Your task to perform on an android device: change notification settings in the gmail app Image 0: 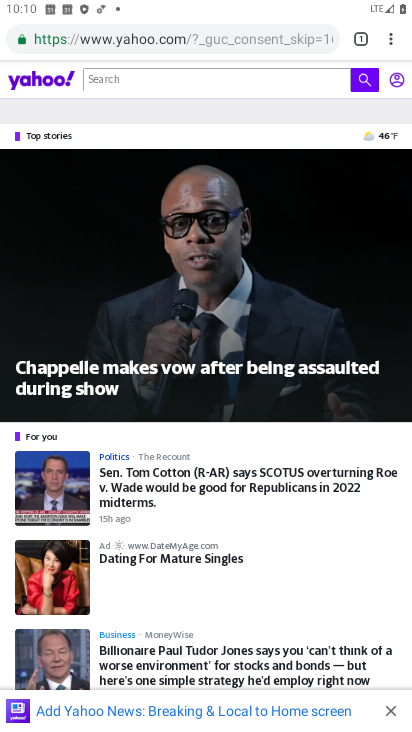
Step 0: drag from (168, 585) to (271, 143)
Your task to perform on an android device: change notification settings in the gmail app Image 1: 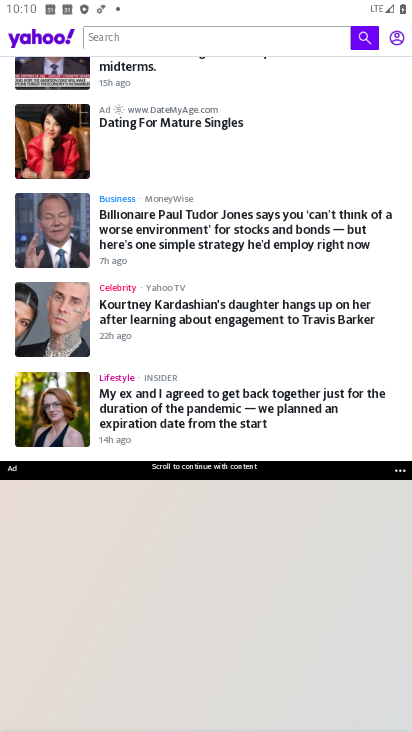
Step 1: drag from (223, 570) to (287, 340)
Your task to perform on an android device: change notification settings in the gmail app Image 2: 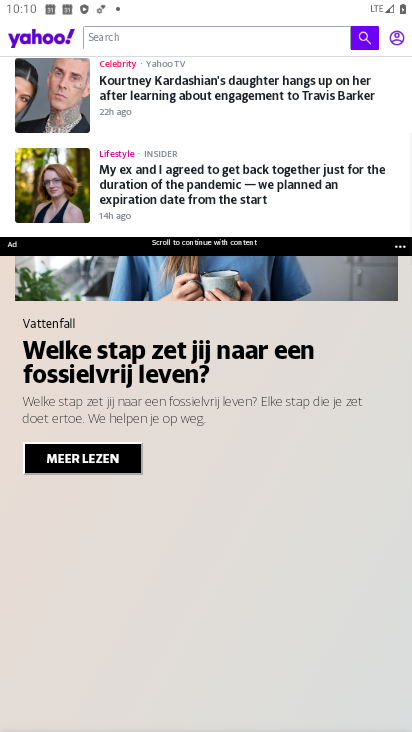
Step 2: drag from (229, 269) to (260, 730)
Your task to perform on an android device: change notification settings in the gmail app Image 3: 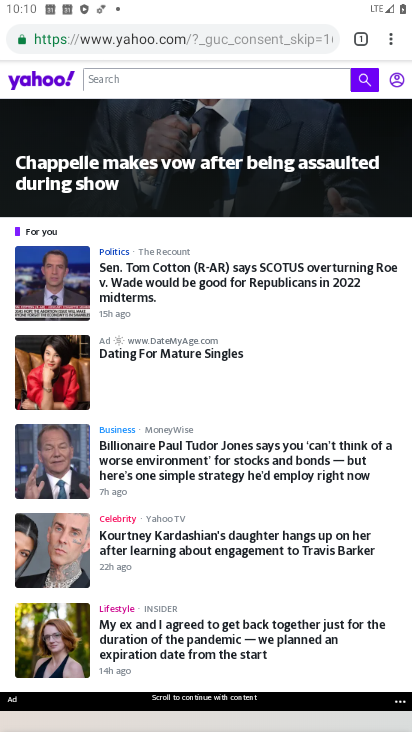
Step 3: drag from (220, 199) to (199, 563)
Your task to perform on an android device: change notification settings in the gmail app Image 4: 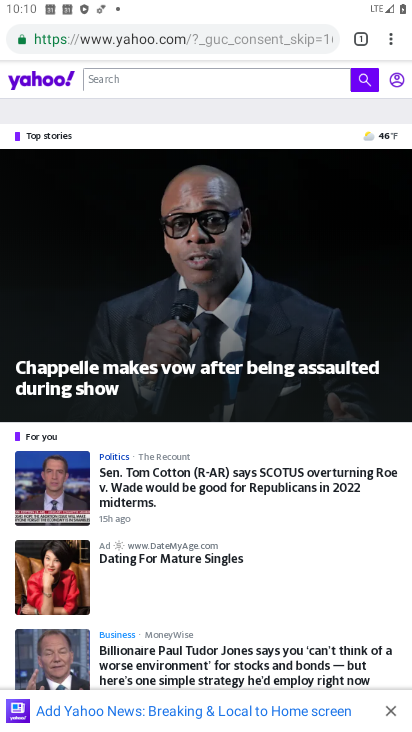
Step 4: drag from (222, 134) to (166, 550)
Your task to perform on an android device: change notification settings in the gmail app Image 5: 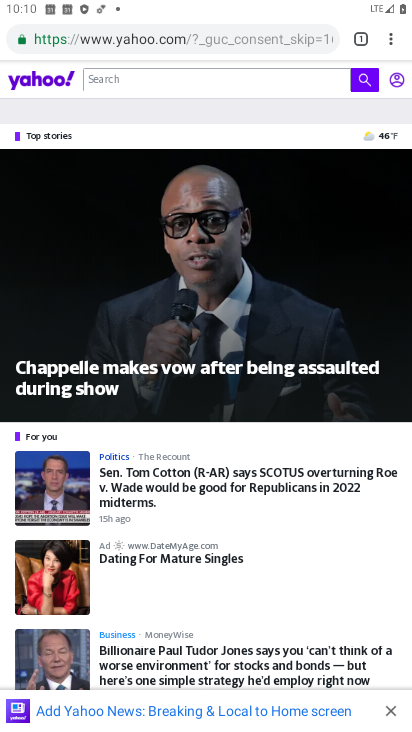
Step 5: drag from (197, 125) to (226, 258)
Your task to perform on an android device: change notification settings in the gmail app Image 6: 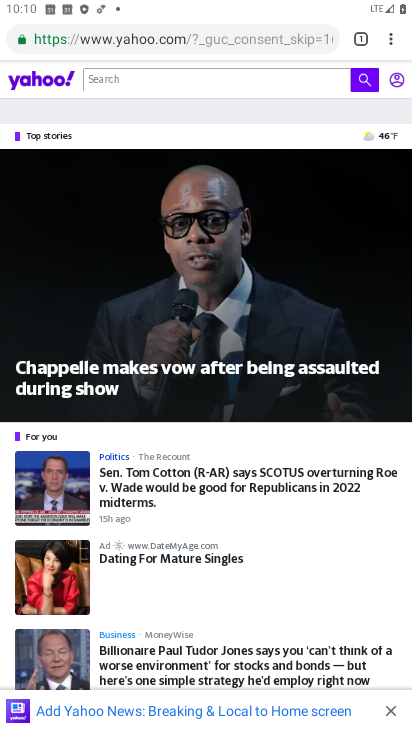
Step 6: click (390, 39)
Your task to perform on an android device: change notification settings in the gmail app Image 7: 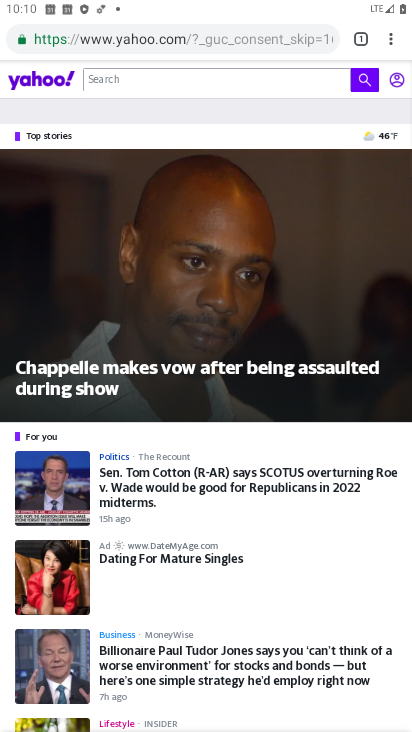
Step 7: press home button
Your task to perform on an android device: change notification settings in the gmail app Image 8: 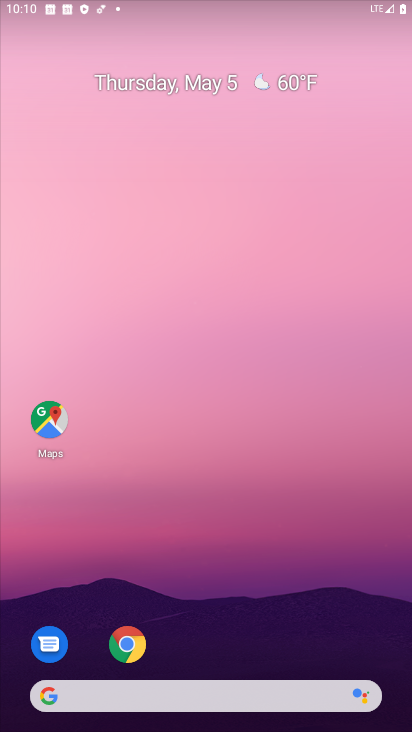
Step 8: drag from (214, 598) to (281, 191)
Your task to perform on an android device: change notification settings in the gmail app Image 9: 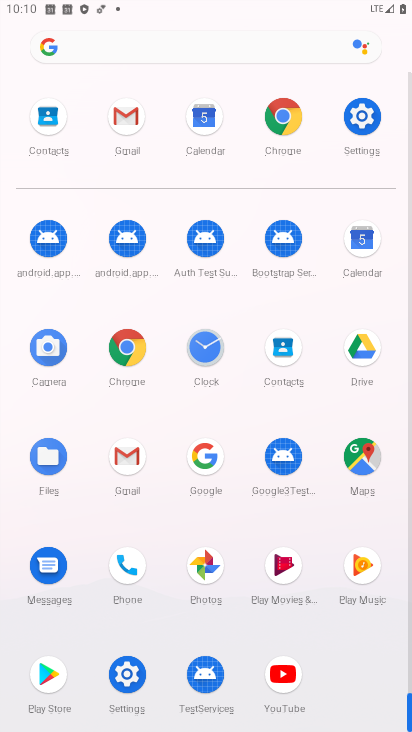
Step 9: click (112, 448)
Your task to perform on an android device: change notification settings in the gmail app Image 10: 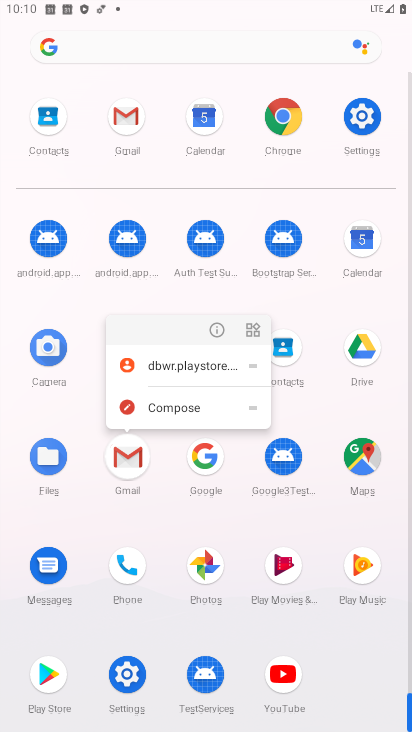
Step 10: click (116, 450)
Your task to perform on an android device: change notification settings in the gmail app Image 11: 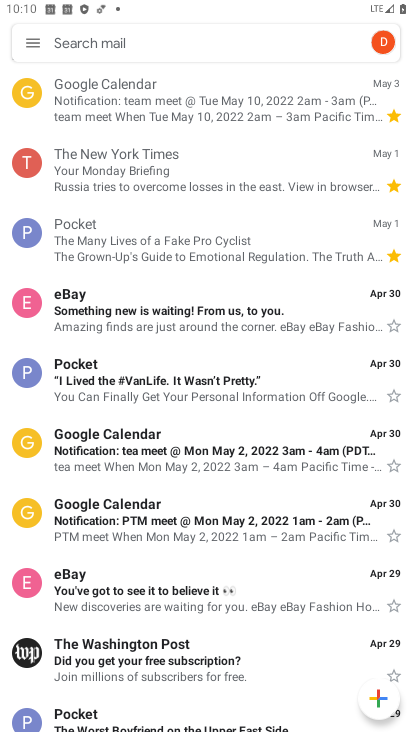
Step 11: drag from (189, 141) to (268, 597)
Your task to perform on an android device: change notification settings in the gmail app Image 12: 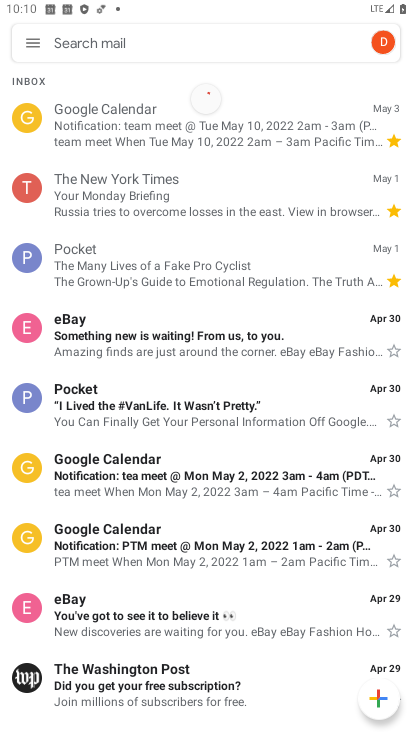
Step 12: click (19, 46)
Your task to perform on an android device: change notification settings in the gmail app Image 13: 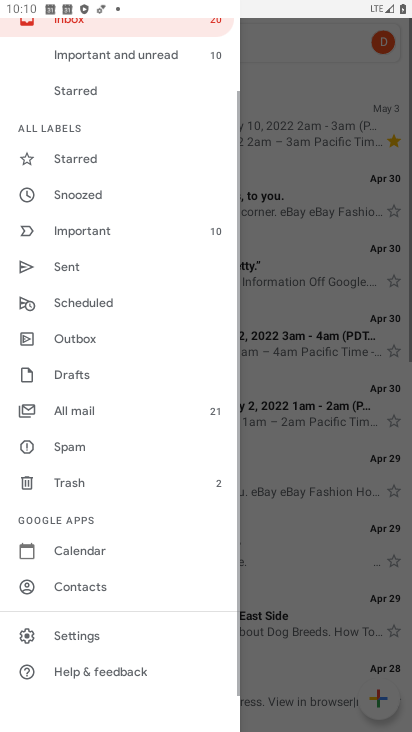
Step 13: drag from (149, 634) to (100, 60)
Your task to perform on an android device: change notification settings in the gmail app Image 14: 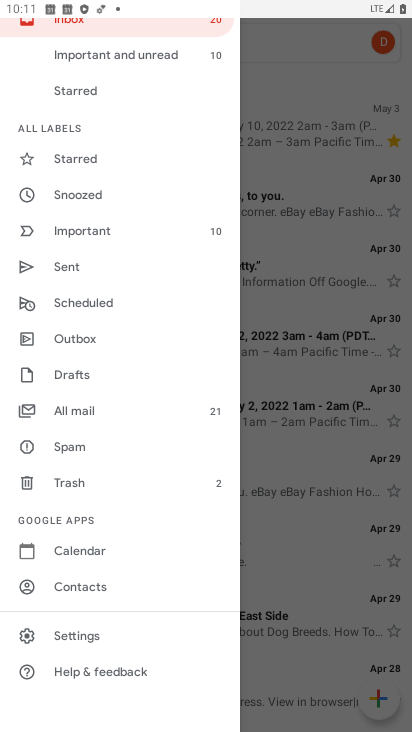
Step 14: click (62, 627)
Your task to perform on an android device: change notification settings in the gmail app Image 15: 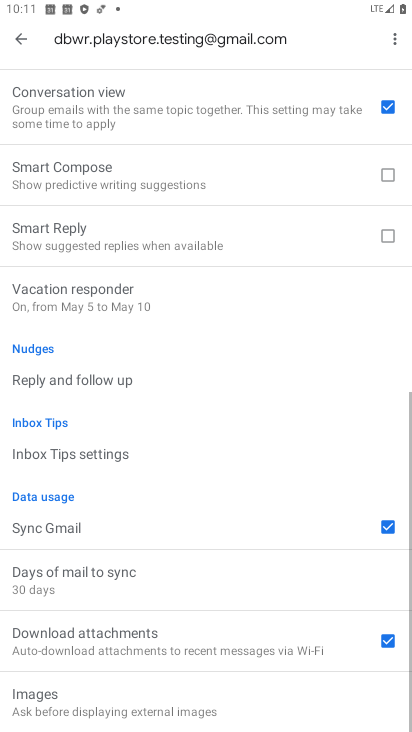
Step 15: drag from (154, 624) to (282, 273)
Your task to perform on an android device: change notification settings in the gmail app Image 16: 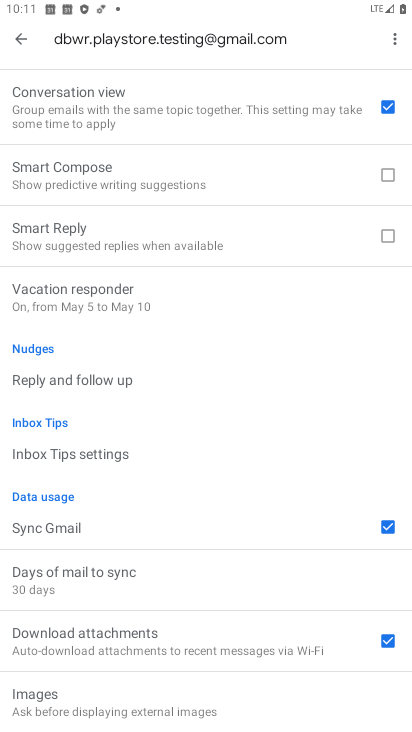
Step 16: drag from (179, 176) to (218, 602)
Your task to perform on an android device: change notification settings in the gmail app Image 17: 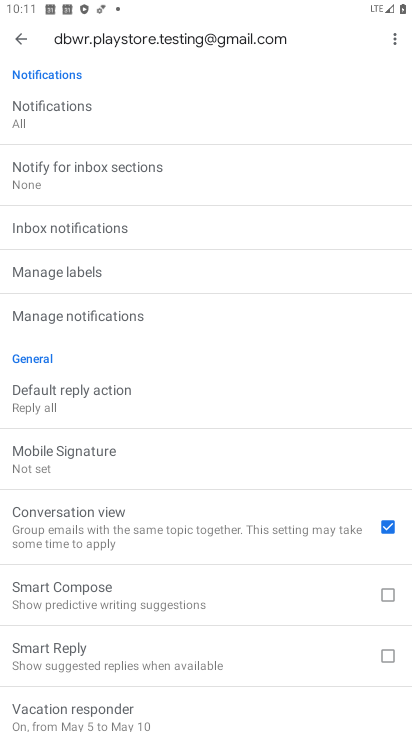
Step 17: drag from (164, 210) to (296, 644)
Your task to perform on an android device: change notification settings in the gmail app Image 18: 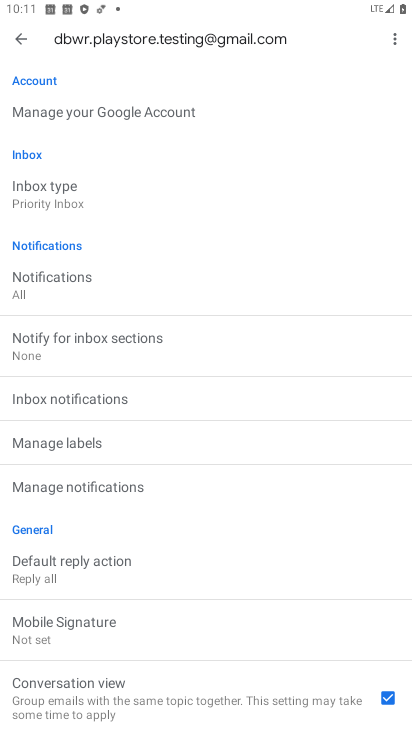
Step 18: drag from (218, 505) to (196, 236)
Your task to perform on an android device: change notification settings in the gmail app Image 19: 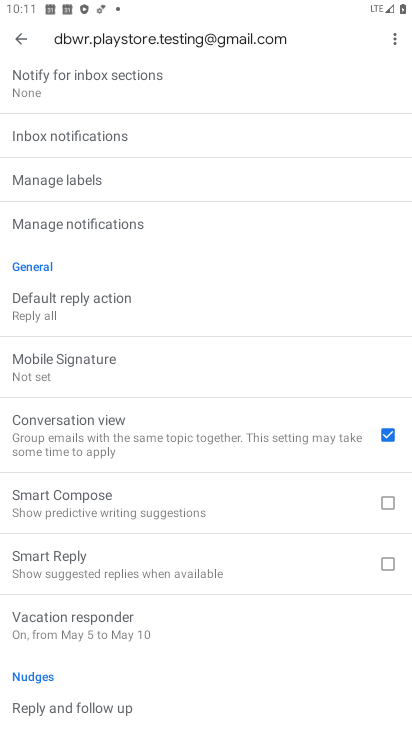
Step 19: drag from (196, 564) to (150, 247)
Your task to perform on an android device: change notification settings in the gmail app Image 20: 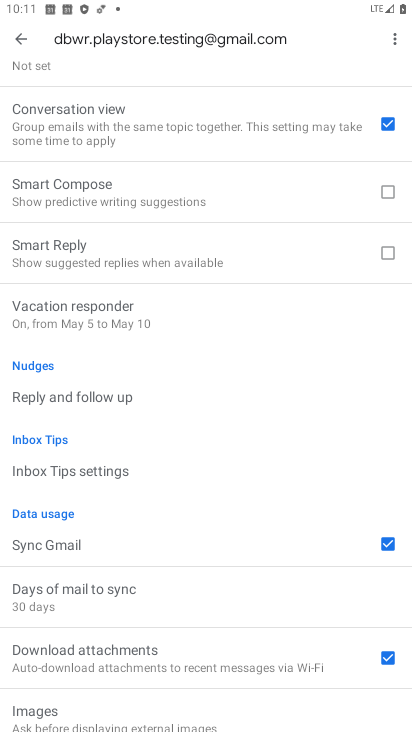
Step 20: drag from (160, 175) to (194, 618)
Your task to perform on an android device: change notification settings in the gmail app Image 21: 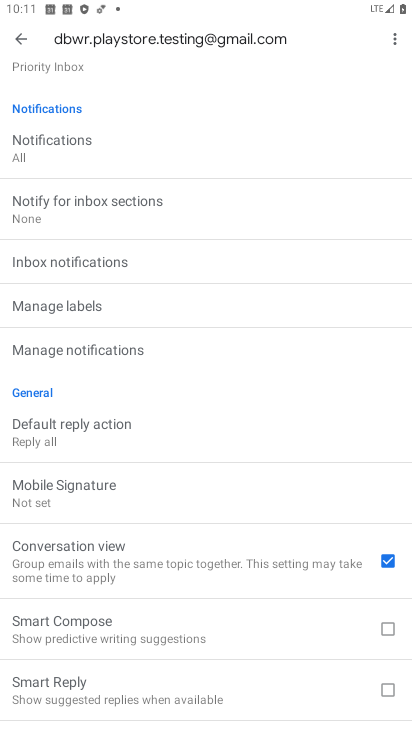
Step 21: click (99, 339)
Your task to perform on an android device: change notification settings in the gmail app Image 22: 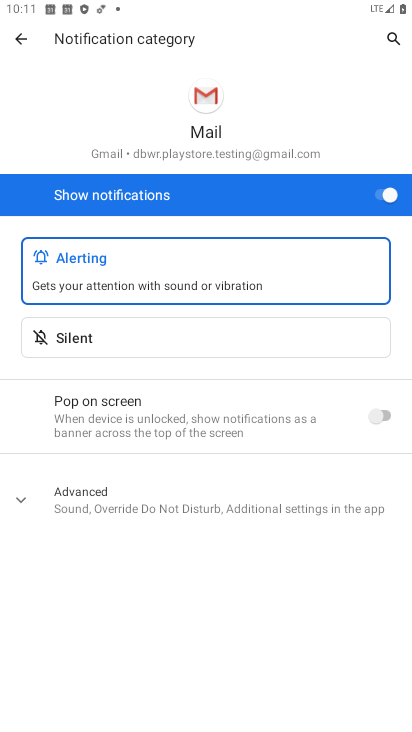
Step 22: click (382, 200)
Your task to perform on an android device: change notification settings in the gmail app Image 23: 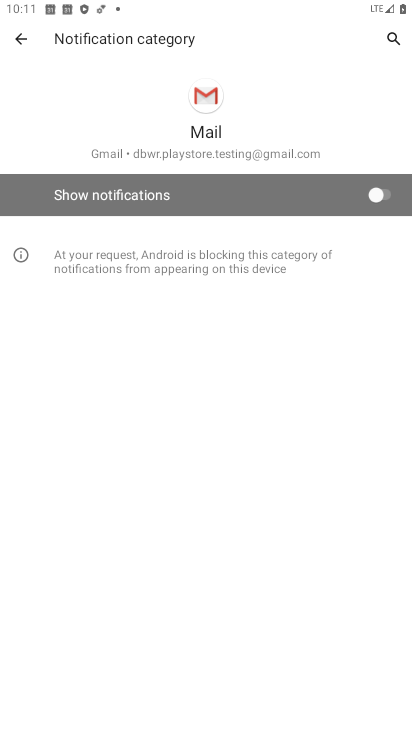
Step 23: click (383, 199)
Your task to perform on an android device: change notification settings in the gmail app Image 24: 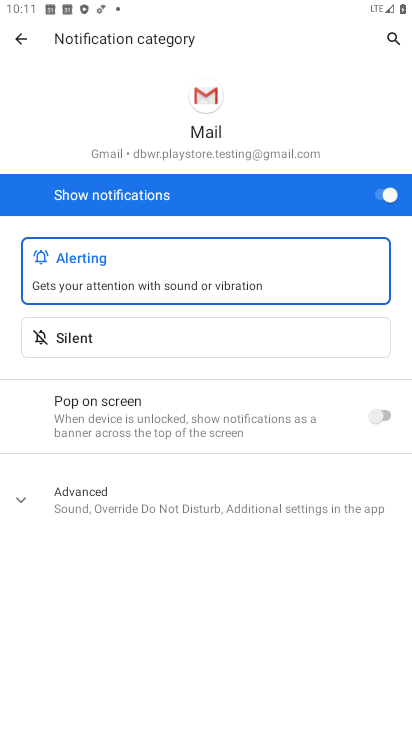
Step 24: click (383, 199)
Your task to perform on an android device: change notification settings in the gmail app Image 25: 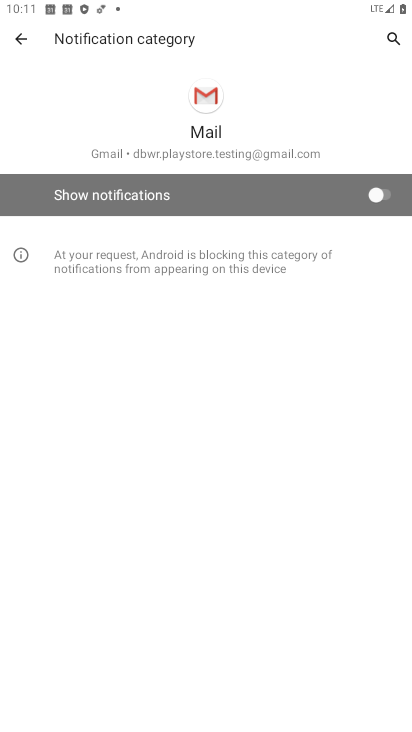
Step 25: task complete